Your task to perform on an android device: View the shopping cart on costco.com. Image 0: 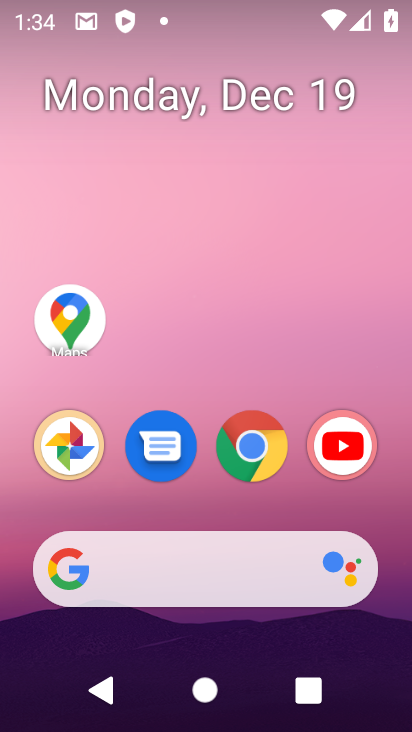
Step 0: click (241, 459)
Your task to perform on an android device: View the shopping cart on costco.com. Image 1: 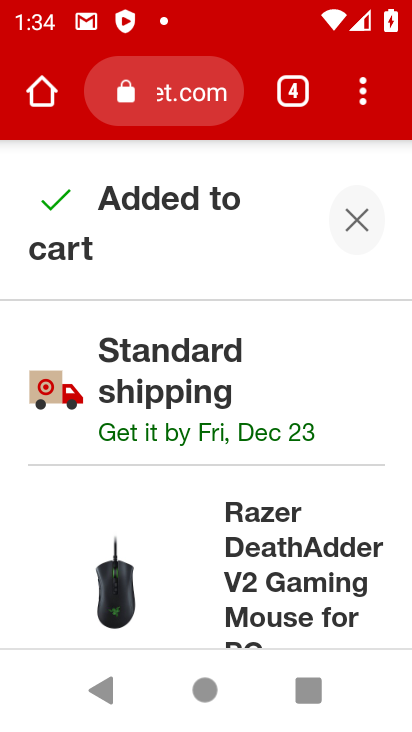
Step 1: click (137, 81)
Your task to perform on an android device: View the shopping cart on costco.com. Image 2: 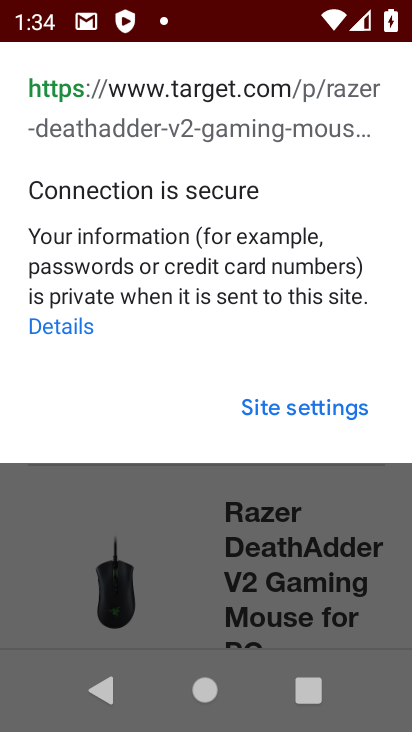
Step 2: click (300, 540)
Your task to perform on an android device: View the shopping cart on costco.com. Image 3: 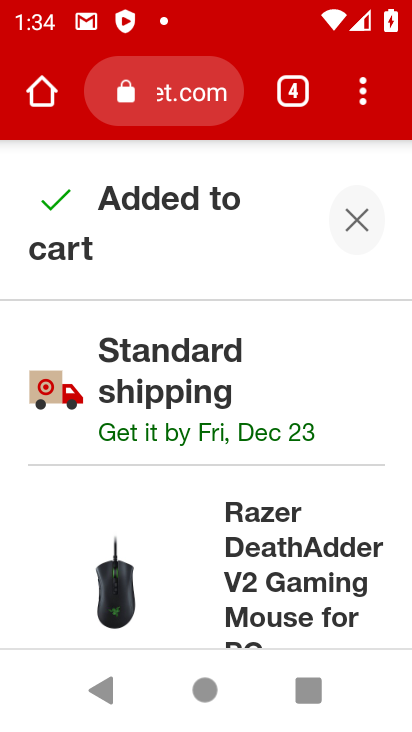
Step 3: click (204, 89)
Your task to perform on an android device: View the shopping cart on costco.com. Image 4: 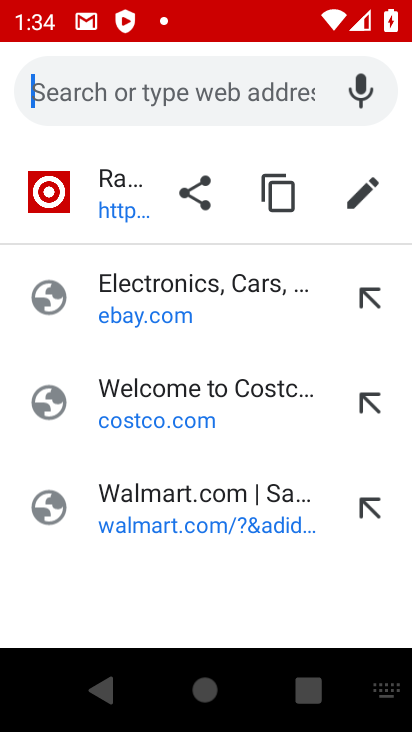
Step 4: type "costco.com"
Your task to perform on an android device: View the shopping cart on costco.com. Image 5: 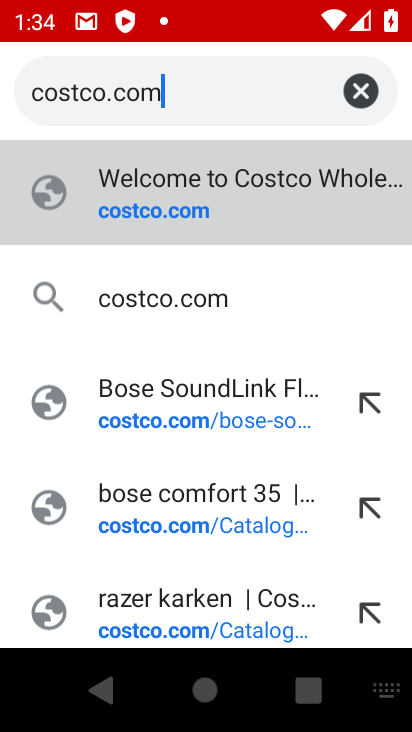
Step 5: click (229, 185)
Your task to perform on an android device: View the shopping cart on costco.com. Image 6: 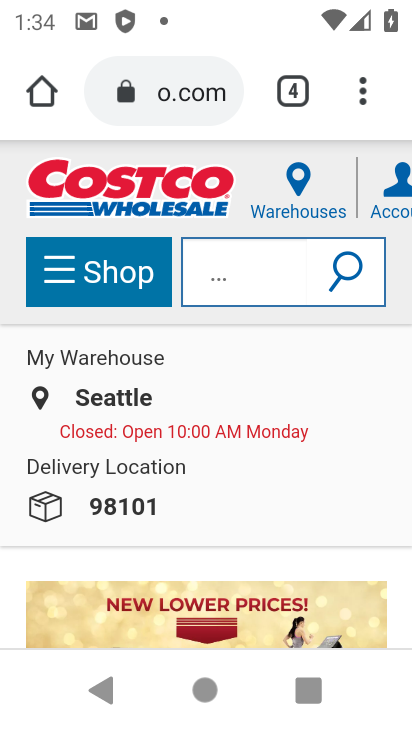
Step 6: task complete